Your task to perform on an android device: change notifications settings Image 0: 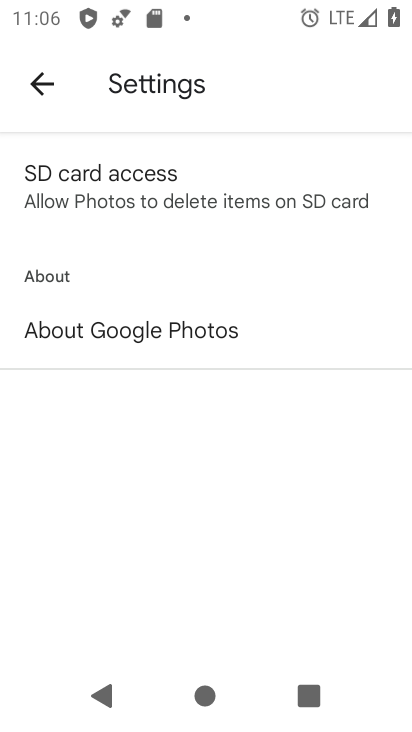
Step 0: press home button
Your task to perform on an android device: change notifications settings Image 1: 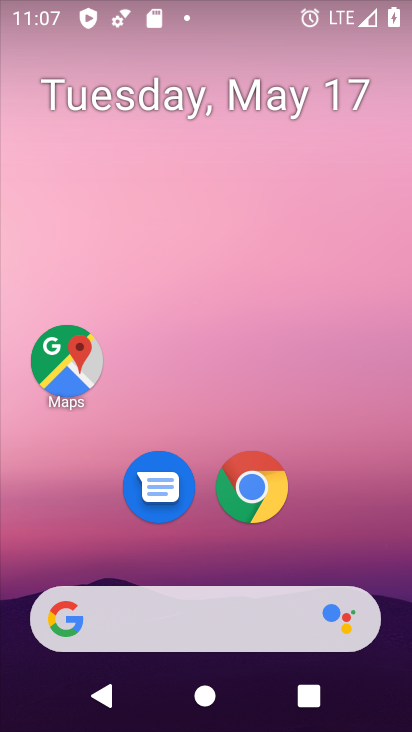
Step 1: drag from (377, 491) to (332, 132)
Your task to perform on an android device: change notifications settings Image 2: 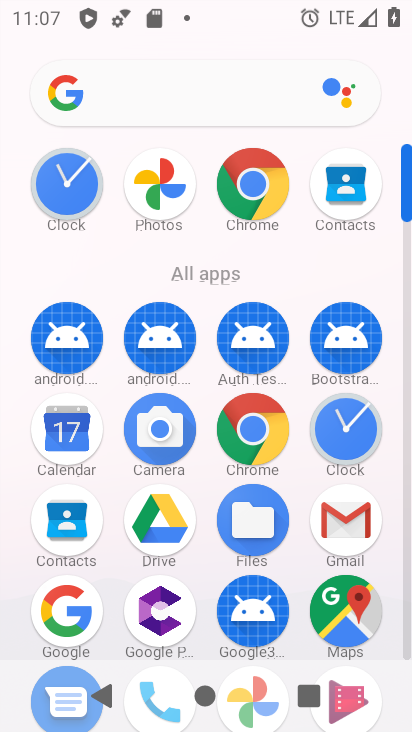
Step 2: click (408, 651)
Your task to perform on an android device: change notifications settings Image 3: 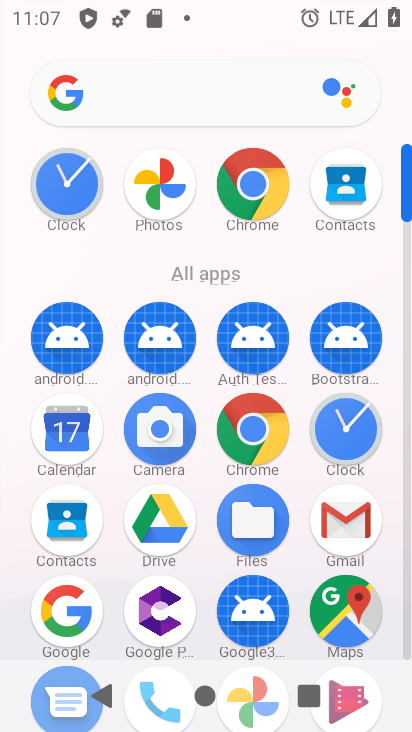
Step 3: click (408, 651)
Your task to perform on an android device: change notifications settings Image 4: 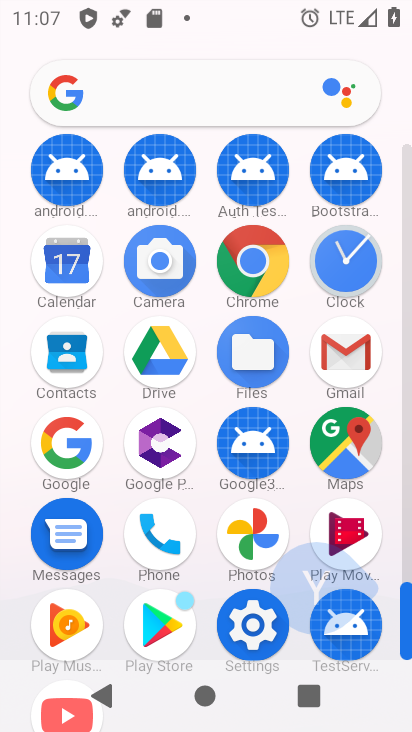
Step 4: click (408, 651)
Your task to perform on an android device: change notifications settings Image 5: 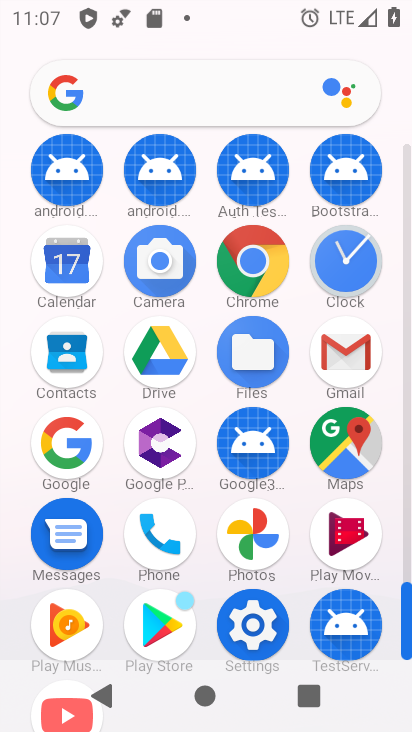
Step 5: click (408, 651)
Your task to perform on an android device: change notifications settings Image 6: 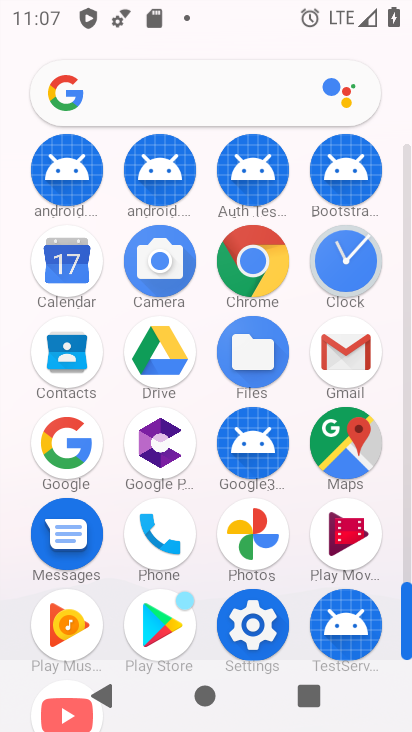
Step 6: click (408, 651)
Your task to perform on an android device: change notifications settings Image 7: 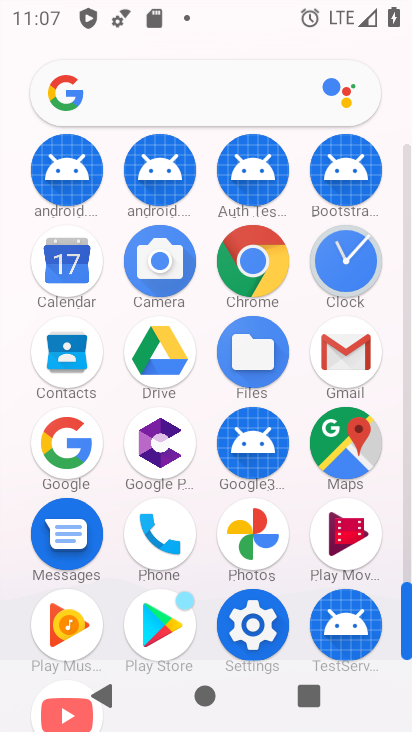
Step 7: click (408, 651)
Your task to perform on an android device: change notifications settings Image 8: 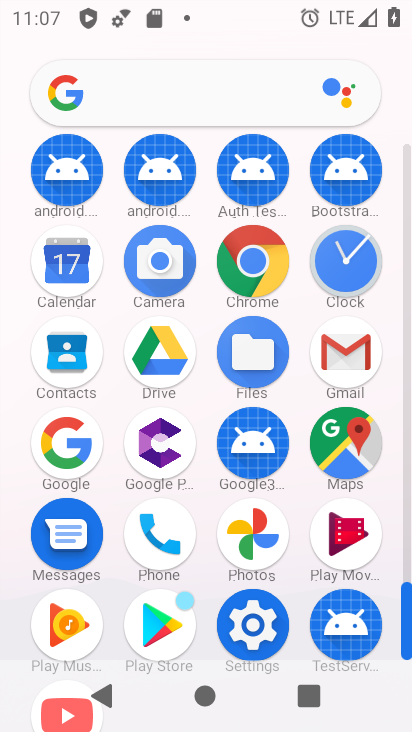
Step 8: click (408, 651)
Your task to perform on an android device: change notifications settings Image 9: 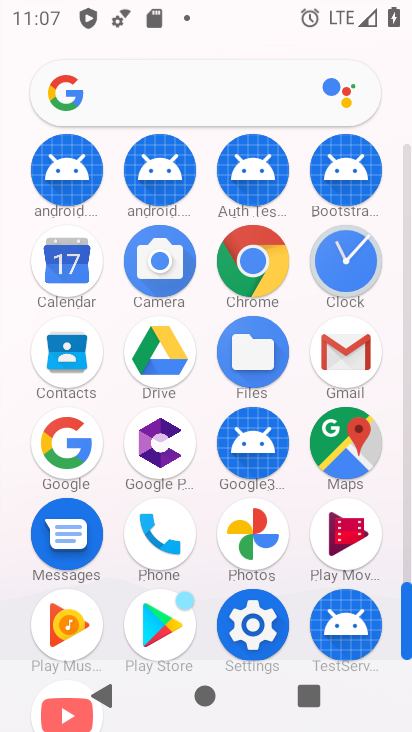
Step 9: click (408, 651)
Your task to perform on an android device: change notifications settings Image 10: 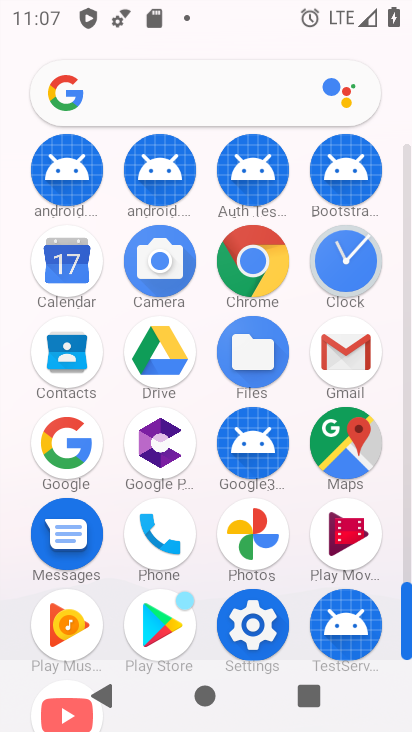
Step 10: drag from (401, 627) to (400, 716)
Your task to perform on an android device: change notifications settings Image 11: 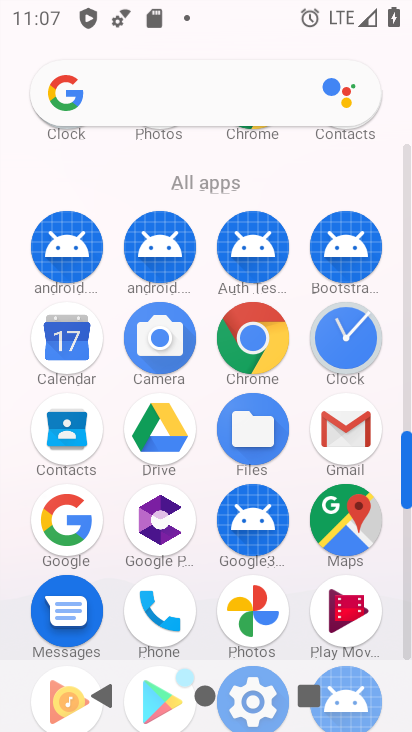
Step 11: click (406, 658)
Your task to perform on an android device: change notifications settings Image 12: 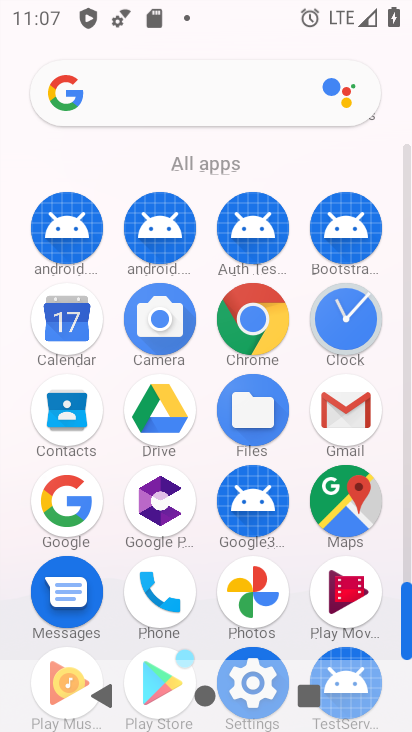
Step 12: click (406, 658)
Your task to perform on an android device: change notifications settings Image 13: 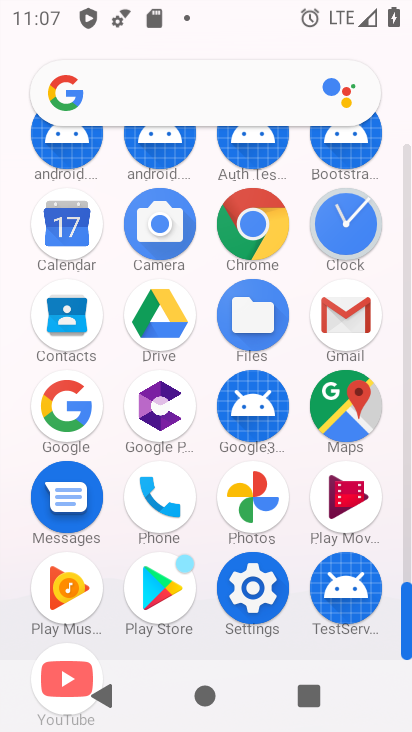
Step 13: click (406, 658)
Your task to perform on an android device: change notifications settings Image 14: 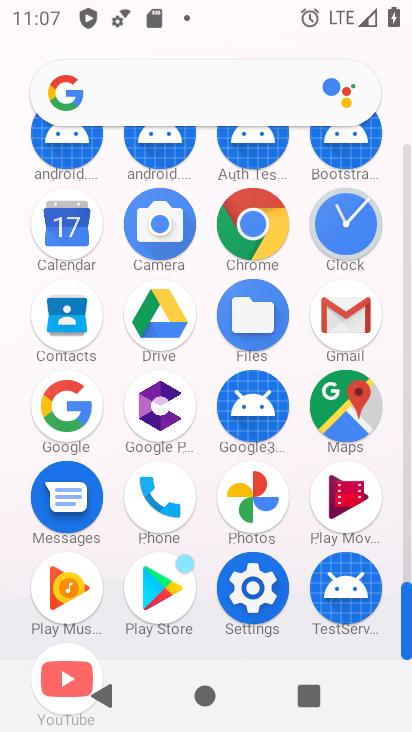
Step 14: click (406, 658)
Your task to perform on an android device: change notifications settings Image 15: 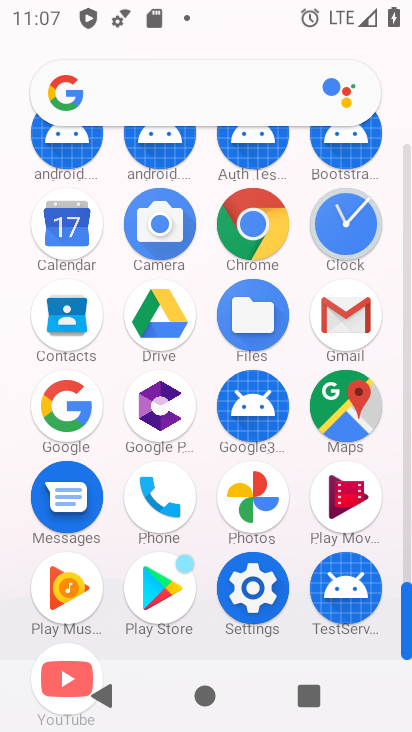
Step 15: click (406, 658)
Your task to perform on an android device: change notifications settings Image 16: 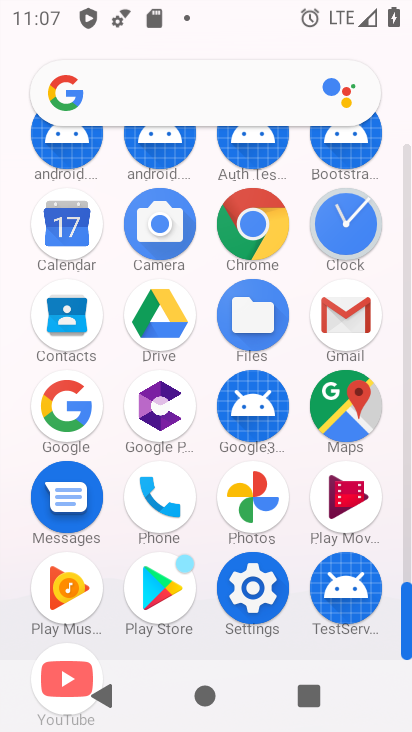
Step 16: click (251, 594)
Your task to perform on an android device: change notifications settings Image 17: 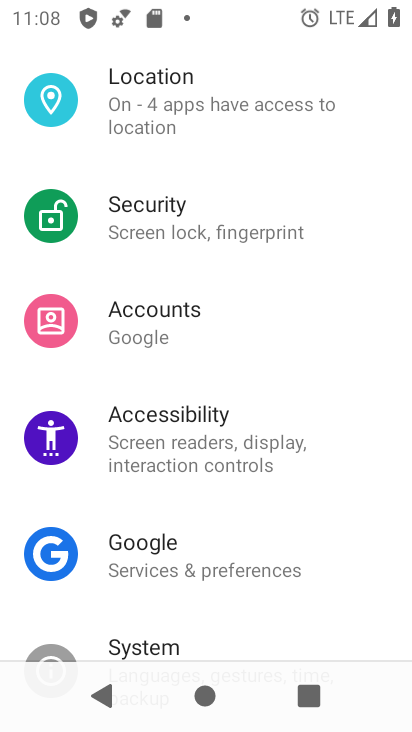
Step 17: drag from (165, 92) to (172, 306)
Your task to perform on an android device: change notifications settings Image 18: 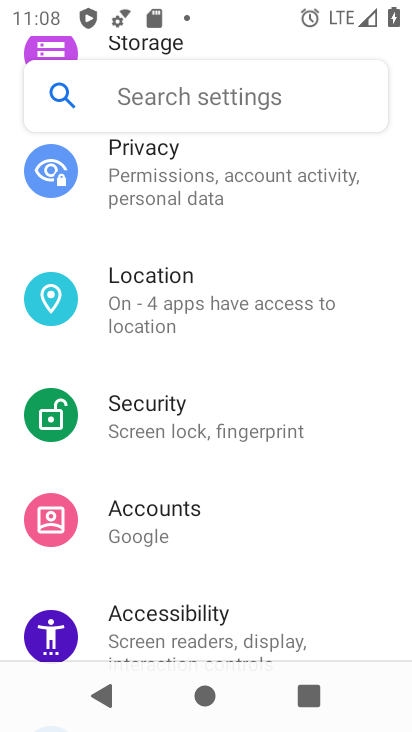
Step 18: drag from (179, 152) to (145, 356)
Your task to perform on an android device: change notifications settings Image 19: 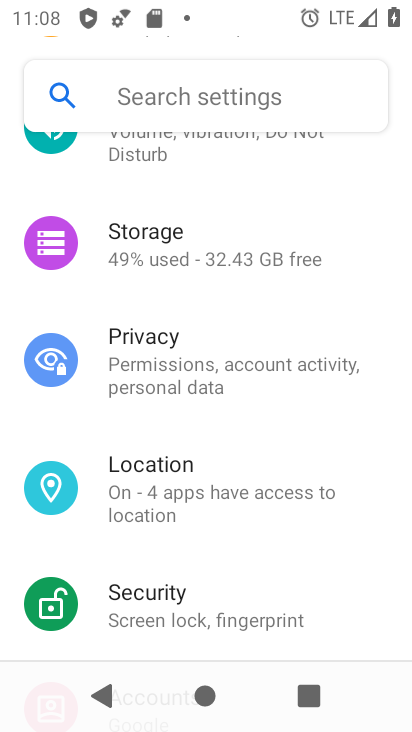
Step 19: drag from (140, 360) to (126, 528)
Your task to perform on an android device: change notifications settings Image 20: 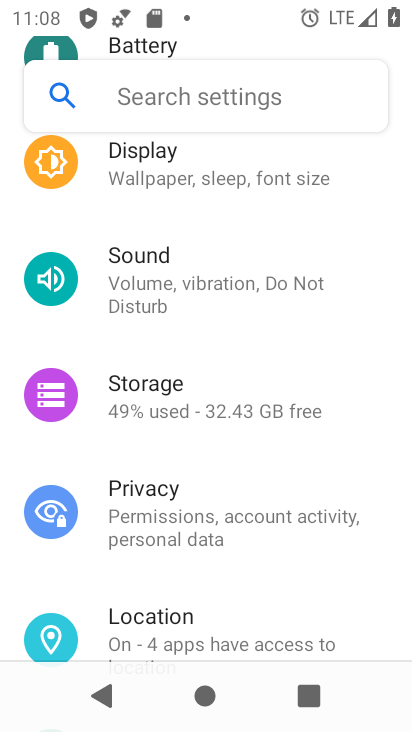
Step 20: drag from (188, 201) to (175, 483)
Your task to perform on an android device: change notifications settings Image 21: 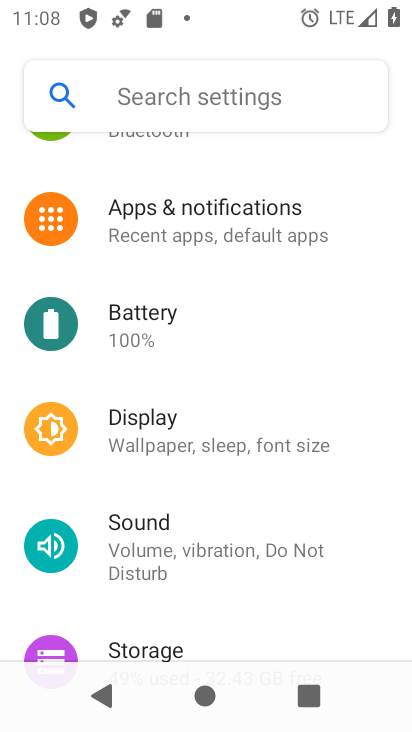
Step 21: drag from (163, 159) to (147, 366)
Your task to perform on an android device: change notifications settings Image 22: 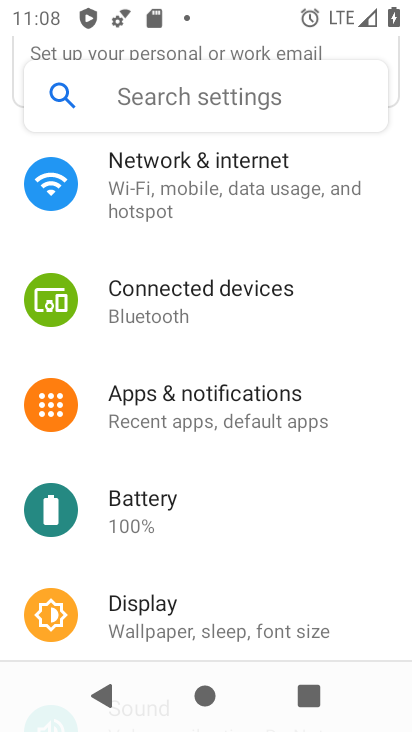
Step 22: drag from (165, 278) to (131, 505)
Your task to perform on an android device: change notifications settings Image 23: 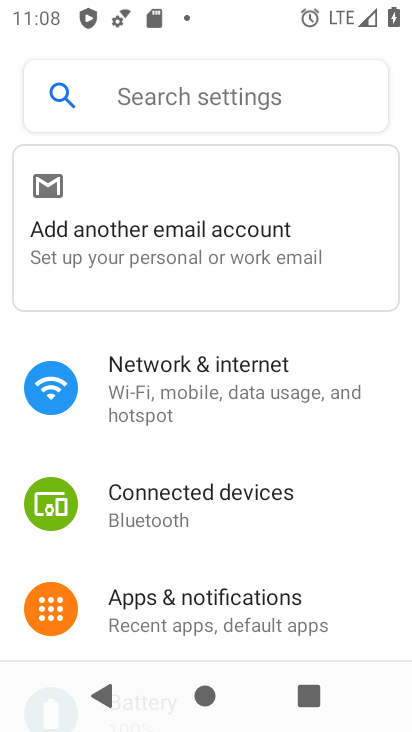
Step 23: click (233, 584)
Your task to perform on an android device: change notifications settings Image 24: 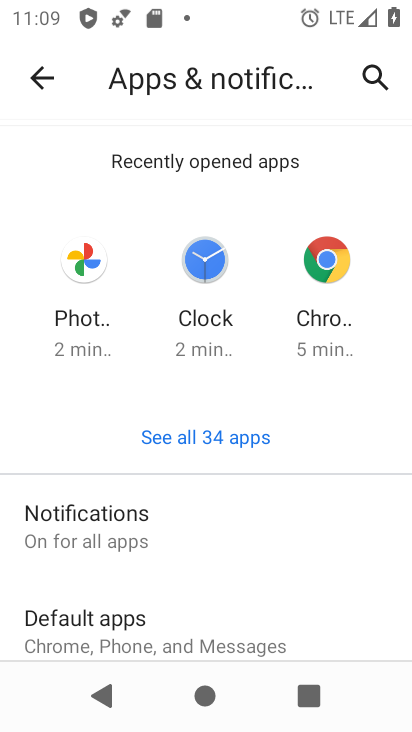
Step 24: drag from (135, 579) to (155, 474)
Your task to perform on an android device: change notifications settings Image 25: 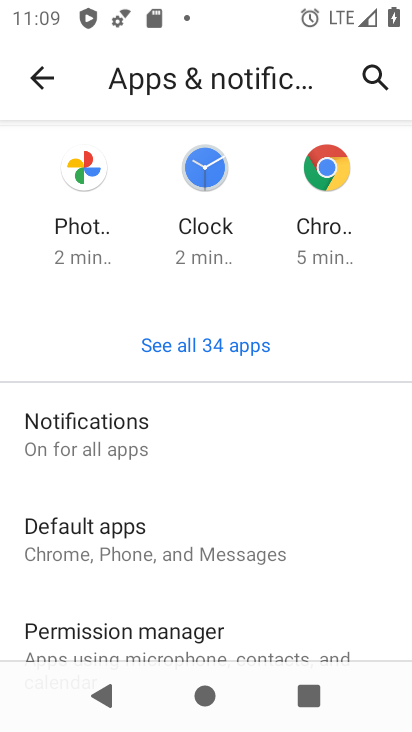
Step 25: click (126, 440)
Your task to perform on an android device: change notifications settings Image 26: 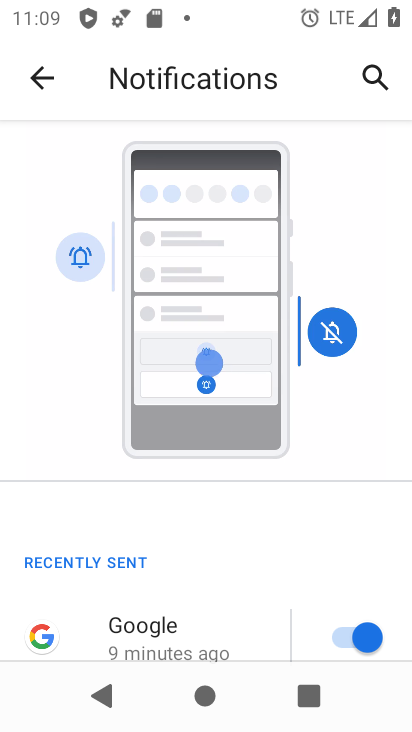
Step 26: drag from (151, 505) to (160, 243)
Your task to perform on an android device: change notifications settings Image 27: 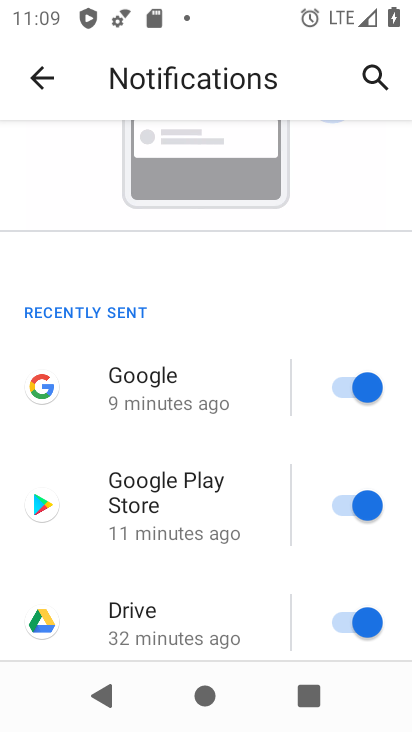
Step 27: drag from (291, 634) to (282, 378)
Your task to perform on an android device: change notifications settings Image 28: 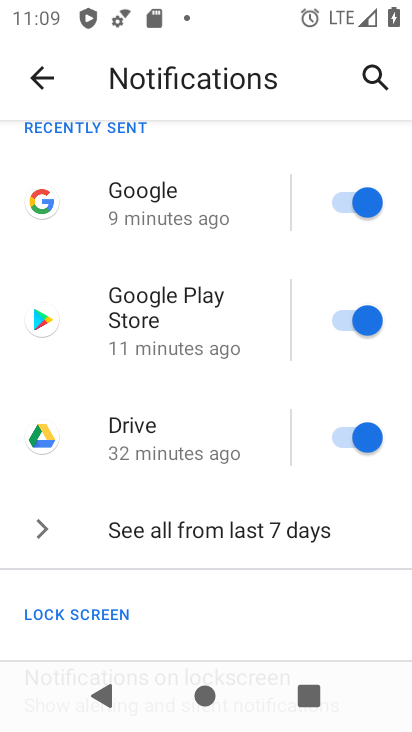
Step 28: drag from (262, 529) to (264, 435)
Your task to perform on an android device: change notifications settings Image 29: 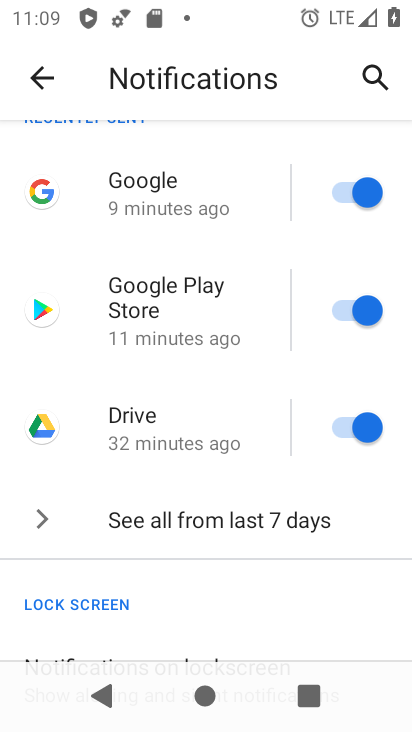
Step 29: drag from (176, 563) to (196, 378)
Your task to perform on an android device: change notifications settings Image 30: 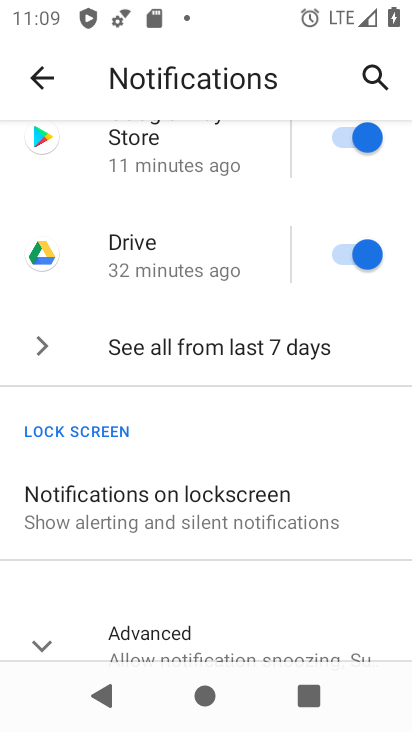
Step 30: drag from (196, 374) to (184, 192)
Your task to perform on an android device: change notifications settings Image 31: 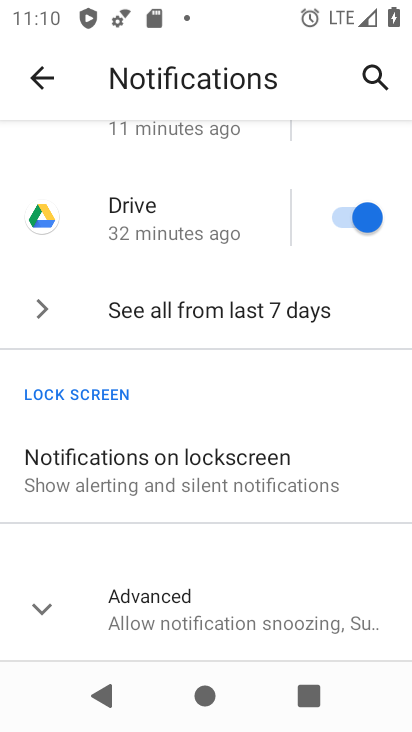
Step 31: click (346, 227)
Your task to perform on an android device: change notifications settings Image 32: 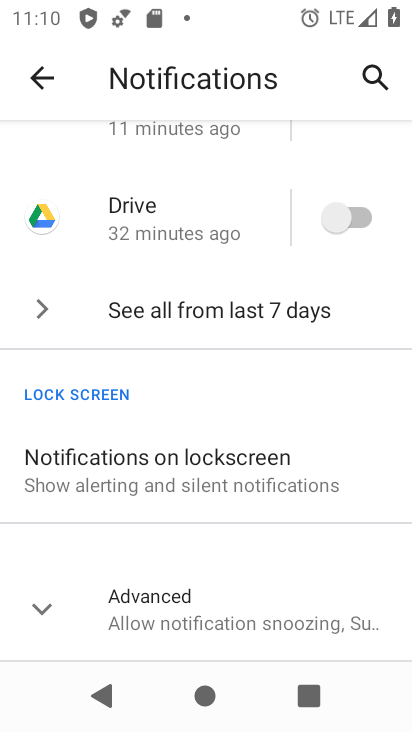
Step 32: click (206, 616)
Your task to perform on an android device: change notifications settings Image 33: 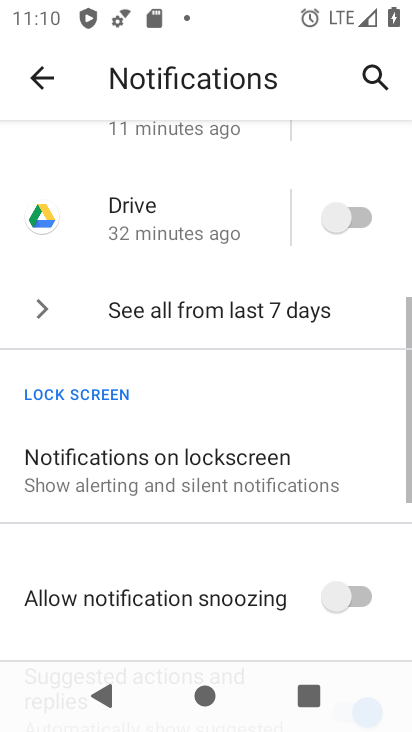
Step 33: drag from (206, 616) to (231, 347)
Your task to perform on an android device: change notifications settings Image 34: 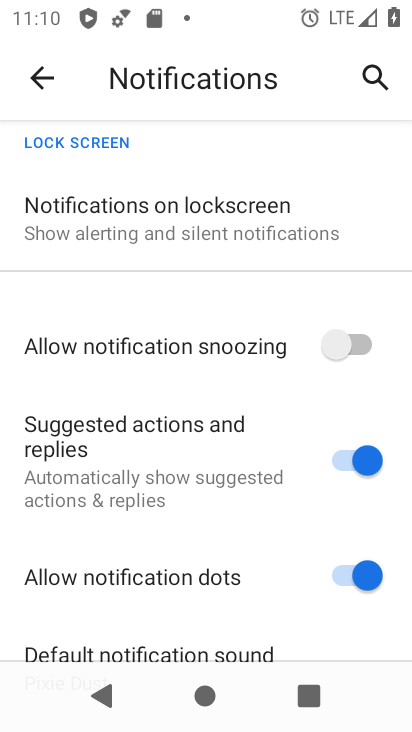
Step 34: click (343, 457)
Your task to perform on an android device: change notifications settings Image 35: 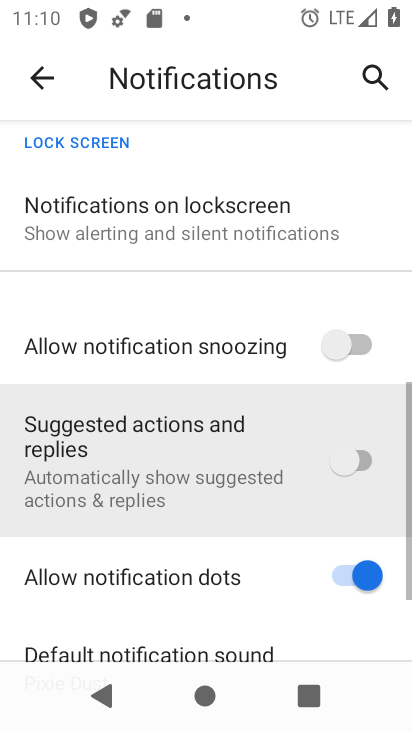
Step 35: click (304, 361)
Your task to perform on an android device: change notifications settings Image 36: 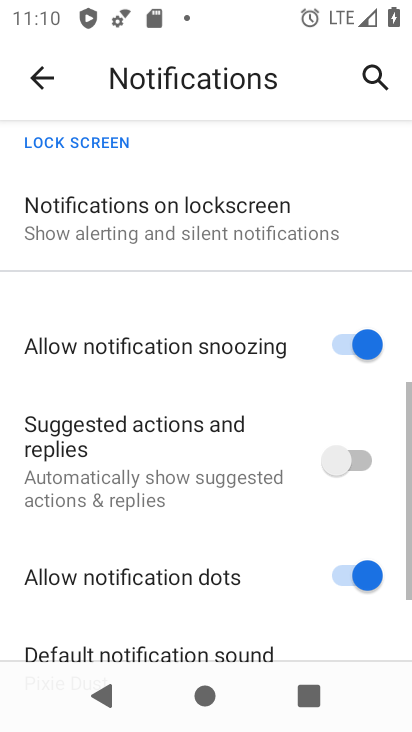
Step 36: task complete